Your task to perform on an android device: Open Maps and search for coffee Image 0: 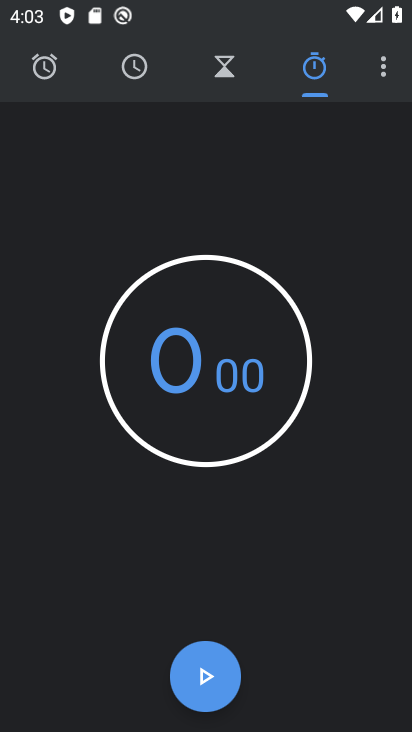
Step 0: press home button
Your task to perform on an android device: Open Maps and search for coffee Image 1: 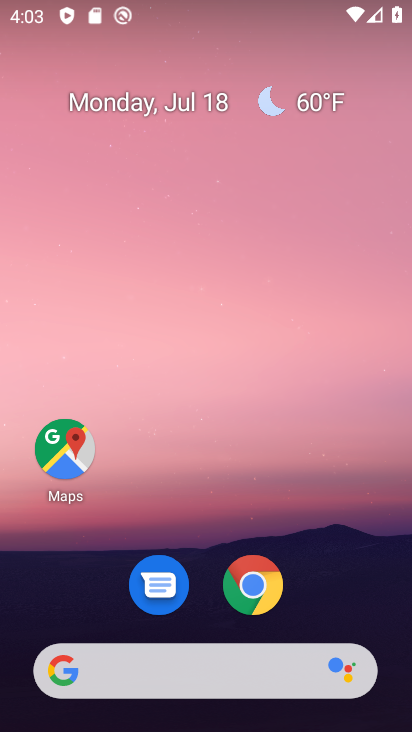
Step 1: click (59, 432)
Your task to perform on an android device: Open Maps and search for coffee Image 2: 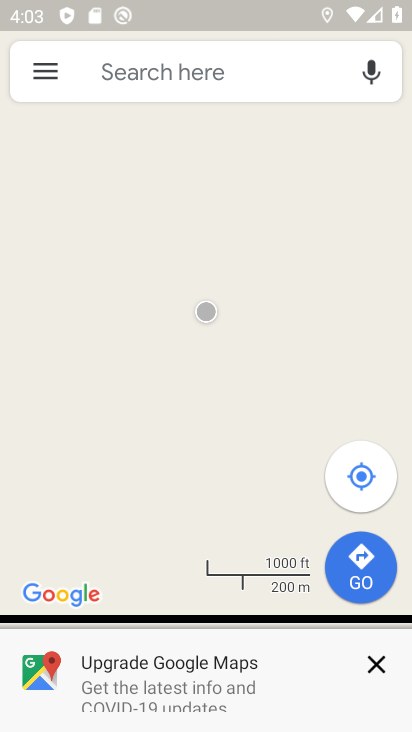
Step 2: click (179, 81)
Your task to perform on an android device: Open Maps and search for coffee Image 3: 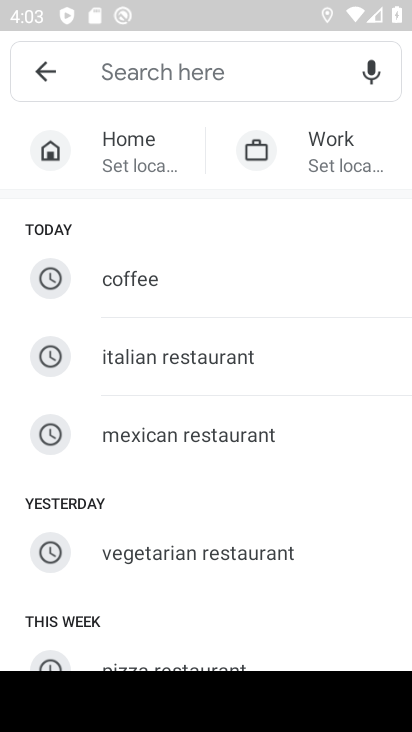
Step 3: click (135, 265)
Your task to perform on an android device: Open Maps and search for coffee Image 4: 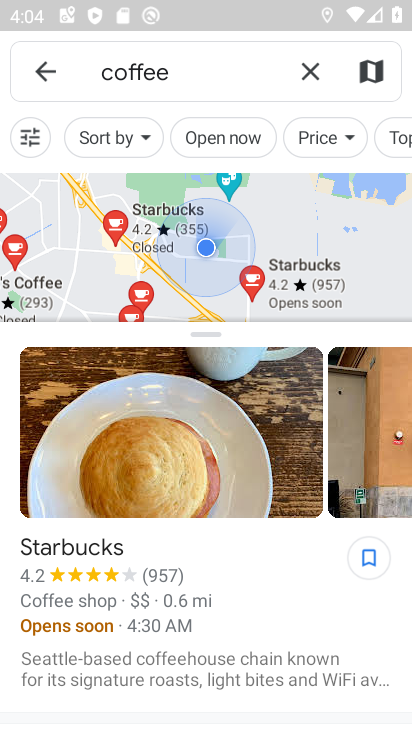
Step 4: task complete